Your task to perform on an android device: find photos in the google photos app Image 0: 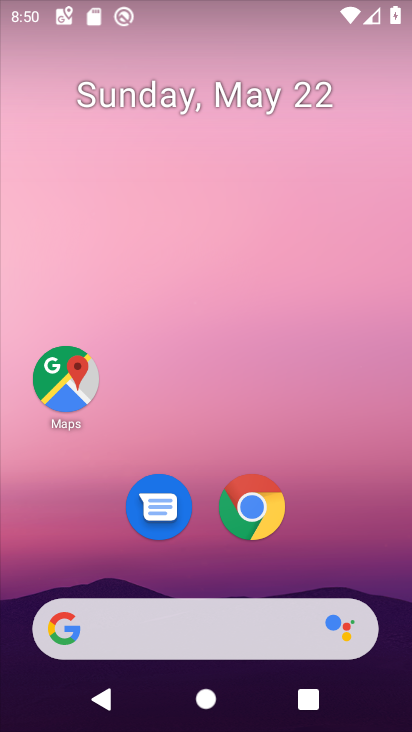
Step 0: drag from (207, 566) to (260, 53)
Your task to perform on an android device: find photos in the google photos app Image 1: 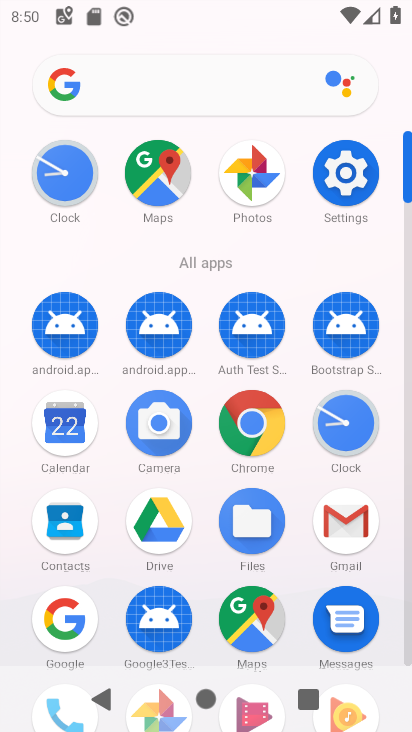
Step 1: click (254, 158)
Your task to perform on an android device: find photos in the google photos app Image 2: 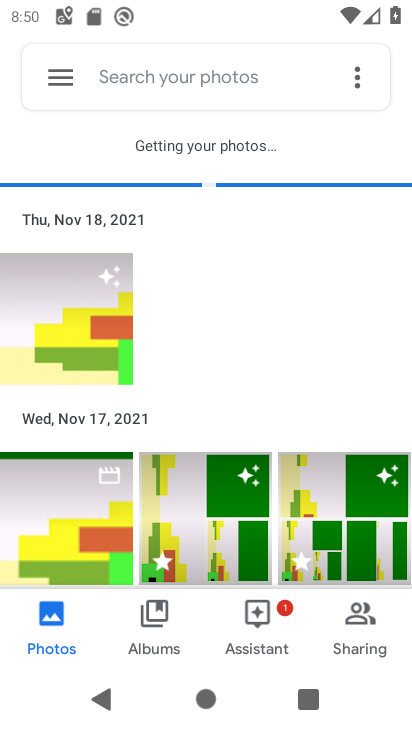
Step 2: task complete